Your task to perform on an android device: turn on sleep mode Image 0: 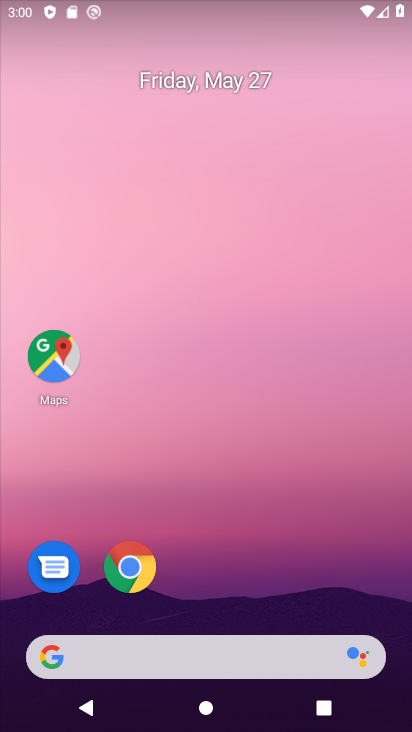
Step 0: drag from (231, 588) to (280, 3)
Your task to perform on an android device: turn on sleep mode Image 1: 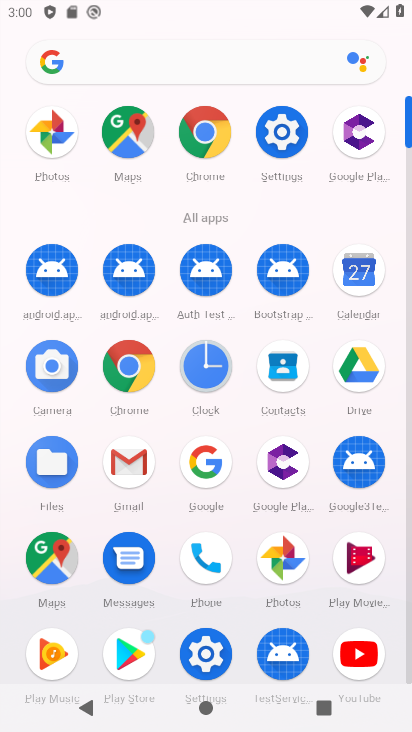
Step 1: click (284, 119)
Your task to perform on an android device: turn on sleep mode Image 2: 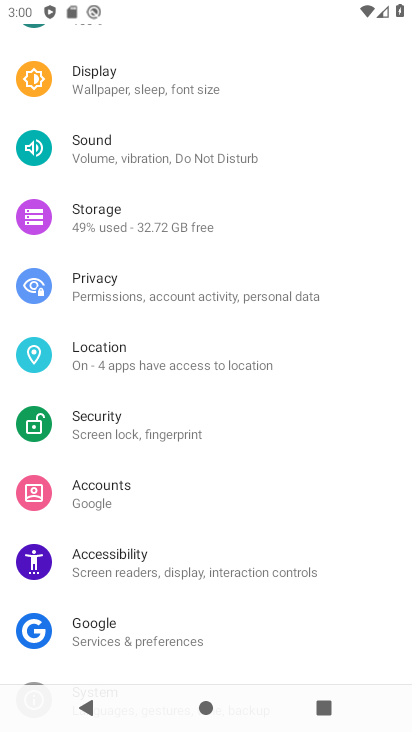
Step 2: drag from (236, 133) to (193, 604)
Your task to perform on an android device: turn on sleep mode Image 3: 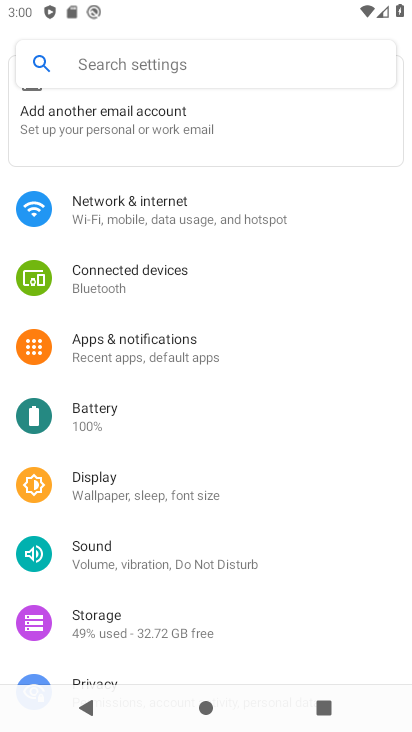
Step 3: click (136, 65)
Your task to perform on an android device: turn on sleep mode Image 4: 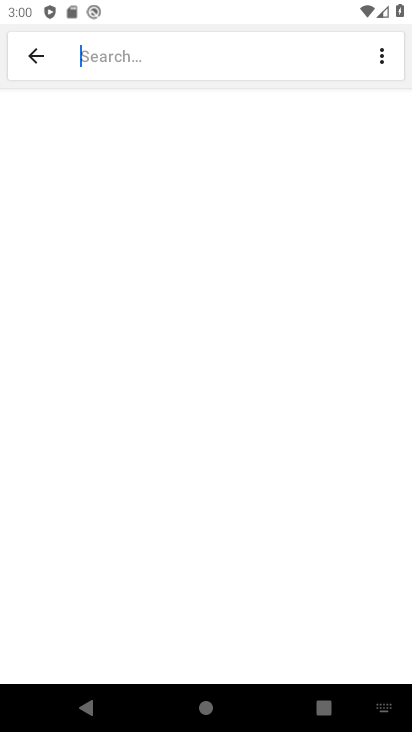
Step 4: type "sleep mode"
Your task to perform on an android device: turn on sleep mode Image 5: 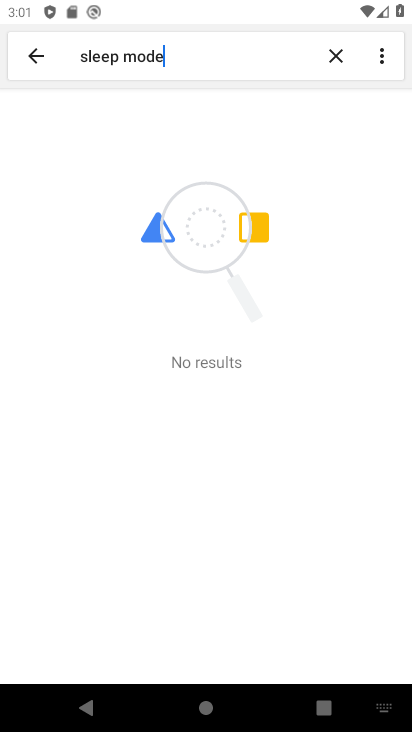
Step 5: task complete